Your task to perform on an android device: toggle priority inbox in the gmail app Image 0: 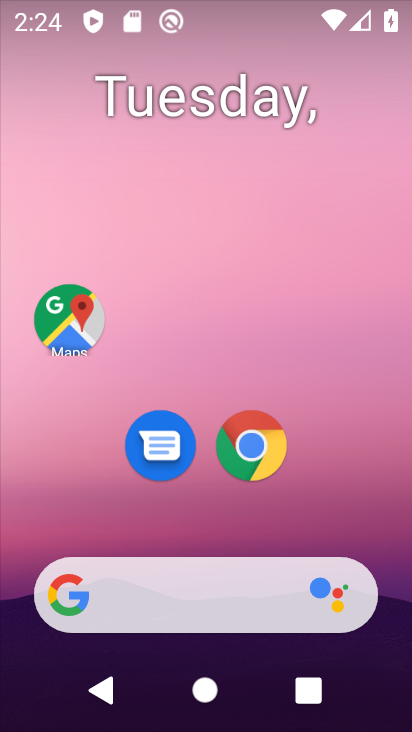
Step 0: drag from (348, 504) to (312, 7)
Your task to perform on an android device: toggle priority inbox in the gmail app Image 1: 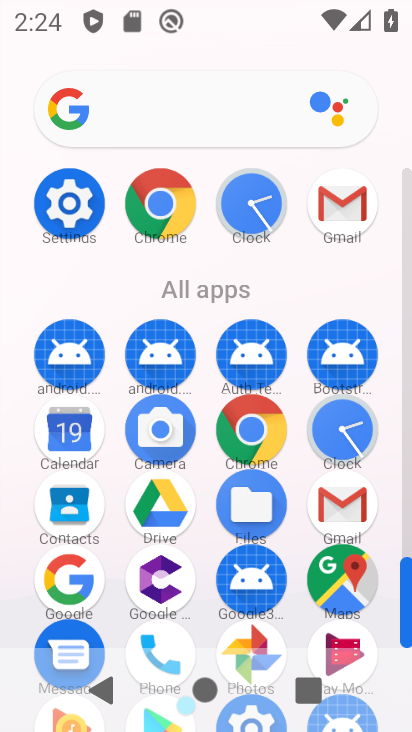
Step 1: click (363, 211)
Your task to perform on an android device: toggle priority inbox in the gmail app Image 2: 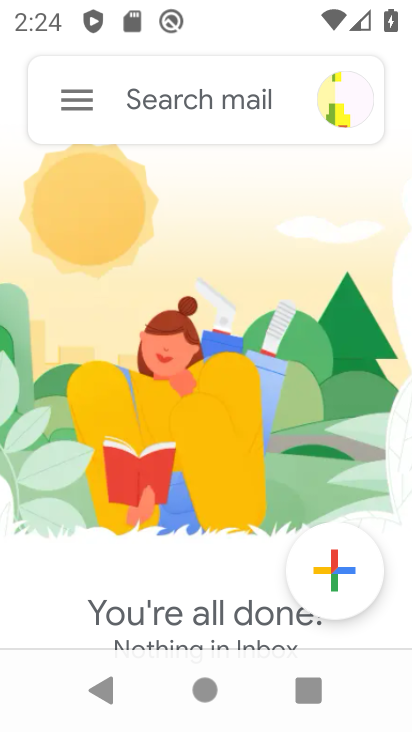
Step 2: click (96, 105)
Your task to perform on an android device: toggle priority inbox in the gmail app Image 3: 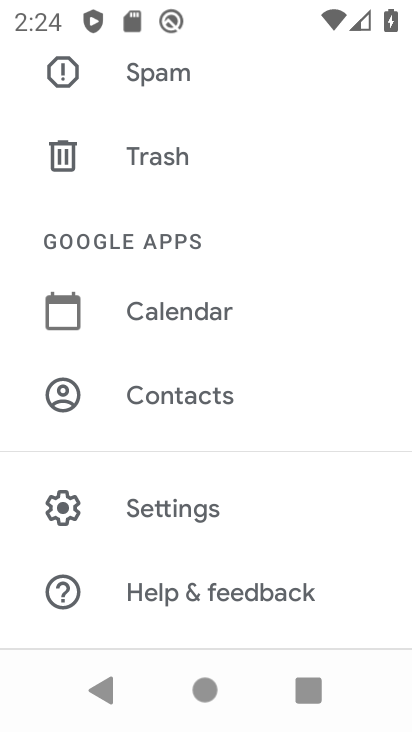
Step 3: click (190, 491)
Your task to perform on an android device: toggle priority inbox in the gmail app Image 4: 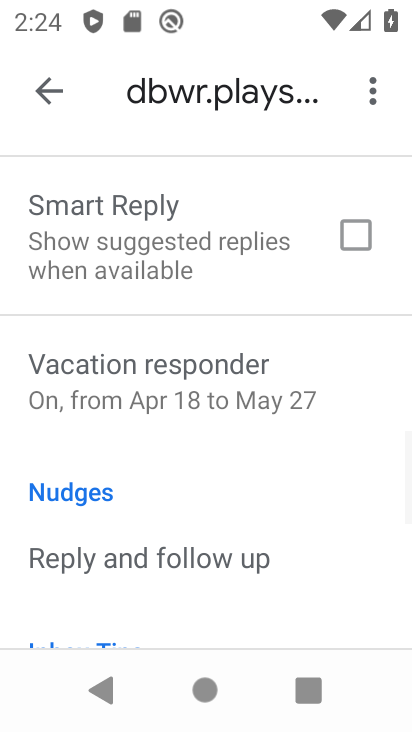
Step 4: drag from (217, 537) to (220, 186)
Your task to perform on an android device: toggle priority inbox in the gmail app Image 5: 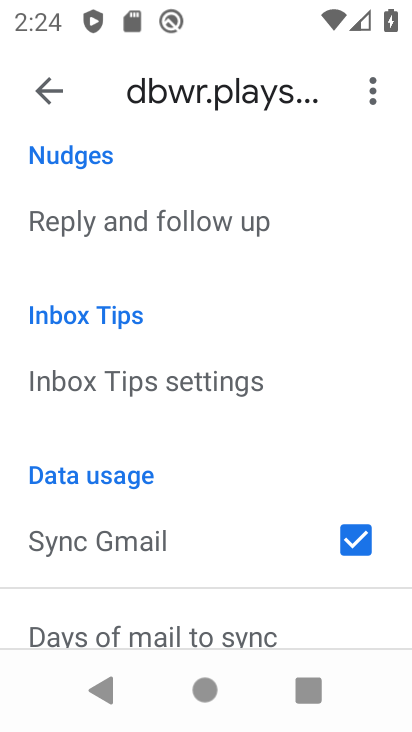
Step 5: drag from (198, 501) to (212, 190)
Your task to perform on an android device: toggle priority inbox in the gmail app Image 6: 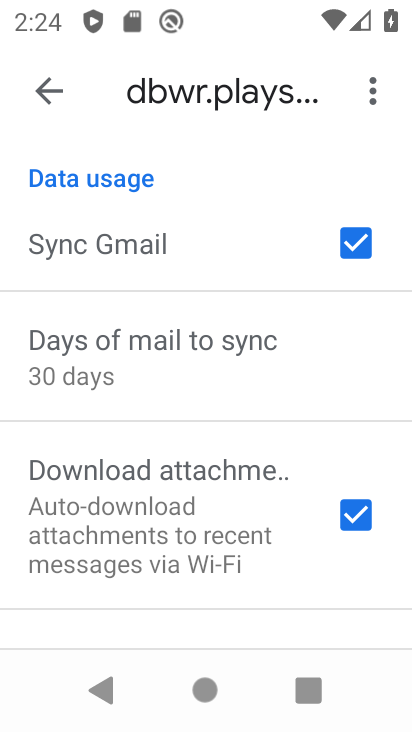
Step 6: drag from (203, 534) to (143, 124)
Your task to perform on an android device: toggle priority inbox in the gmail app Image 7: 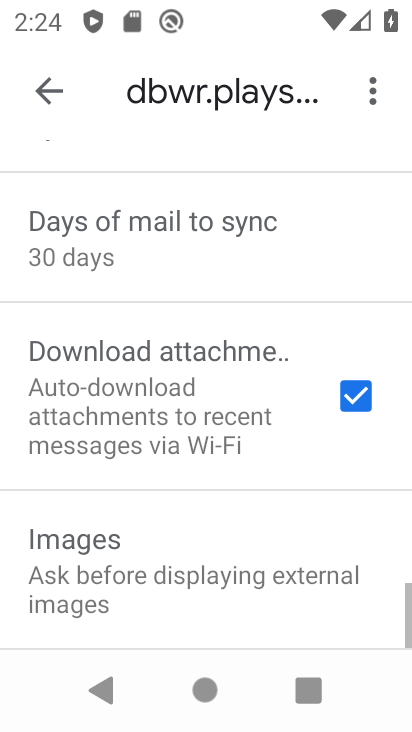
Step 7: drag from (186, 217) to (240, 535)
Your task to perform on an android device: toggle priority inbox in the gmail app Image 8: 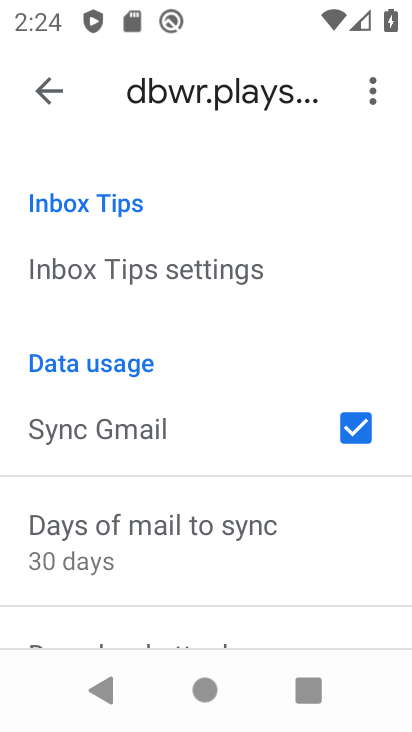
Step 8: drag from (158, 228) to (231, 552)
Your task to perform on an android device: toggle priority inbox in the gmail app Image 9: 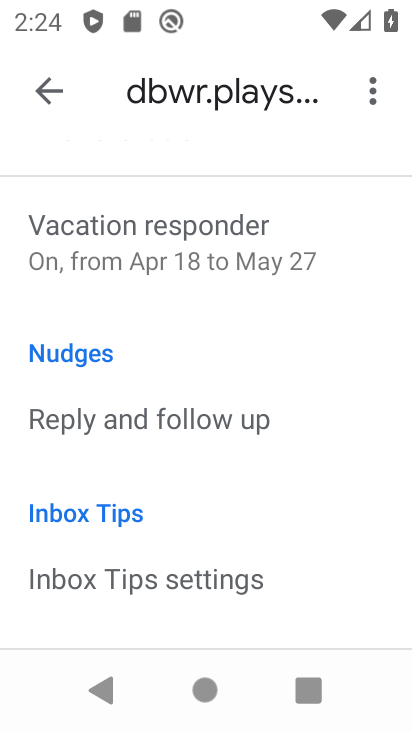
Step 9: drag from (160, 249) to (210, 547)
Your task to perform on an android device: toggle priority inbox in the gmail app Image 10: 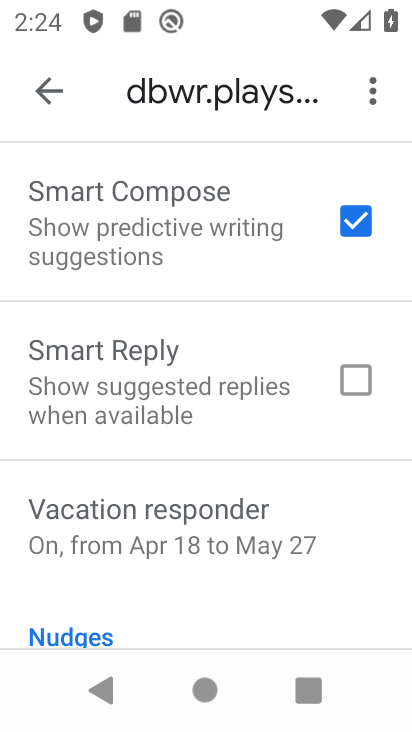
Step 10: drag from (144, 205) to (192, 533)
Your task to perform on an android device: toggle priority inbox in the gmail app Image 11: 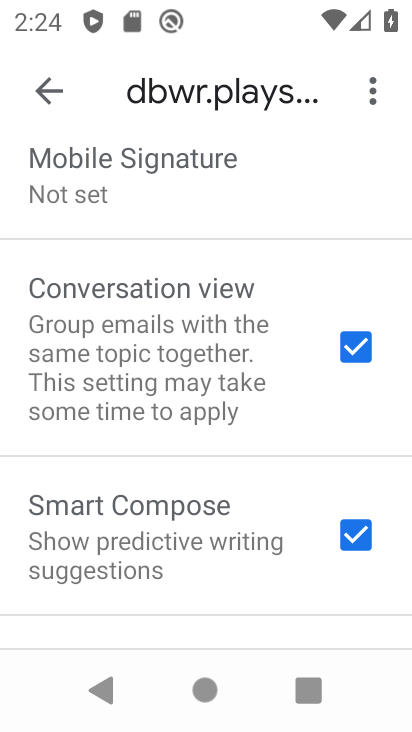
Step 11: drag from (138, 297) to (206, 570)
Your task to perform on an android device: toggle priority inbox in the gmail app Image 12: 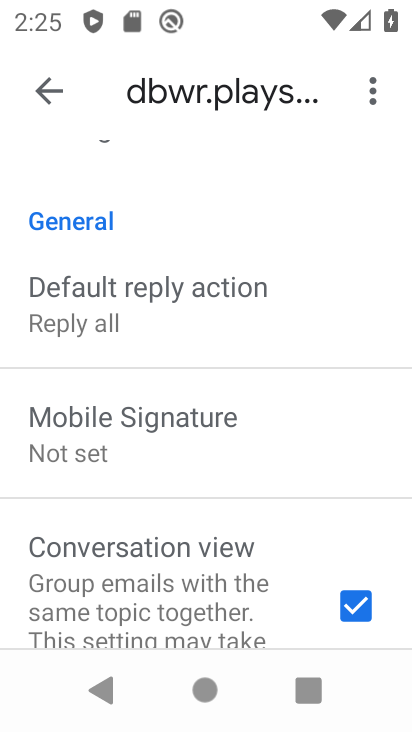
Step 12: drag from (170, 294) to (208, 586)
Your task to perform on an android device: toggle priority inbox in the gmail app Image 13: 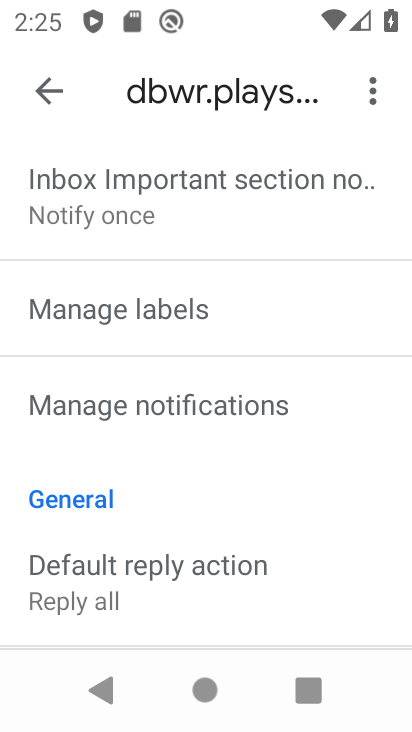
Step 13: drag from (244, 234) to (243, 532)
Your task to perform on an android device: toggle priority inbox in the gmail app Image 14: 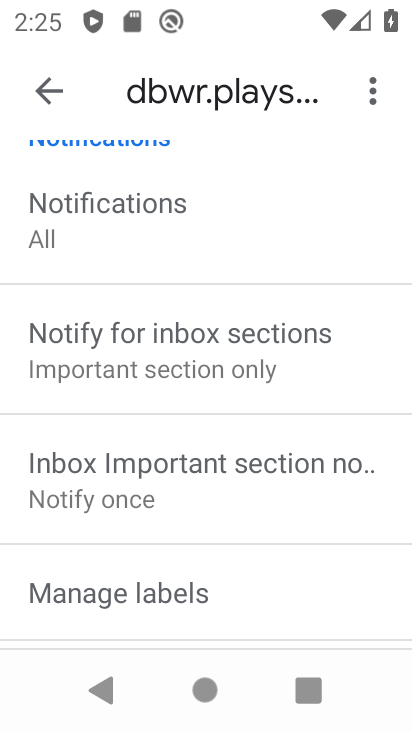
Step 14: drag from (168, 190) to (153, 604)
Your task to perform on an android device: toggle priority inbox in the gmail app Image 15: 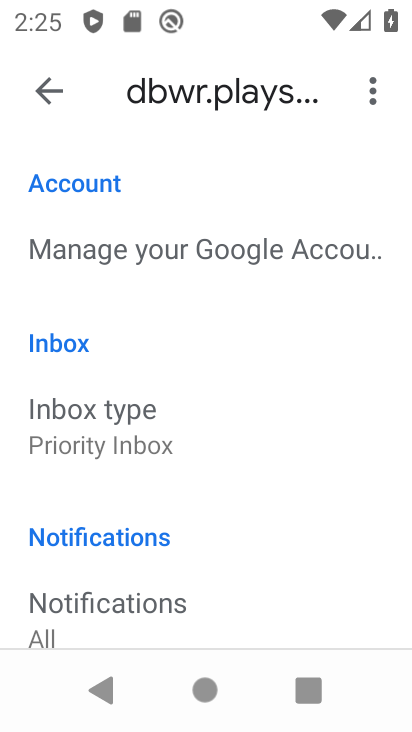
Step 15: click (51, 437)
Your task to perform on an android device: toggle priority inbox in the gmail app Image 16: 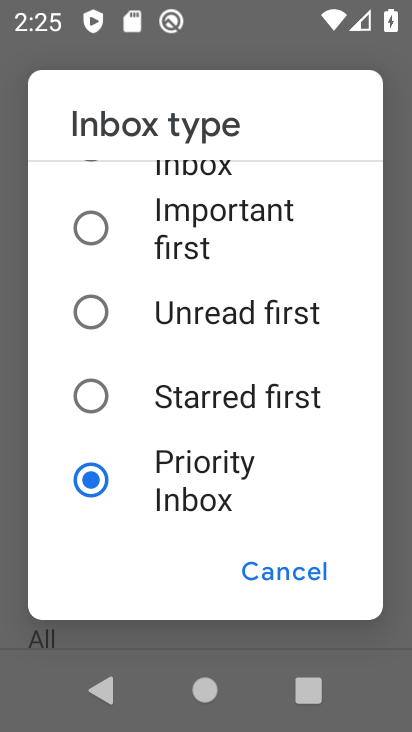
Step 16: click (96, 244)
Your task to perform on an android device: toggle priority inbox in the gmail app Image 17: 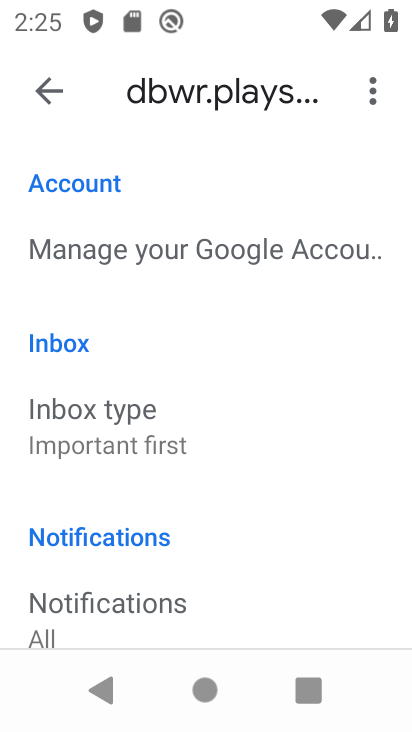
Step 17: task complete